Your task to perform on an android device: What is the news today? Image 0: 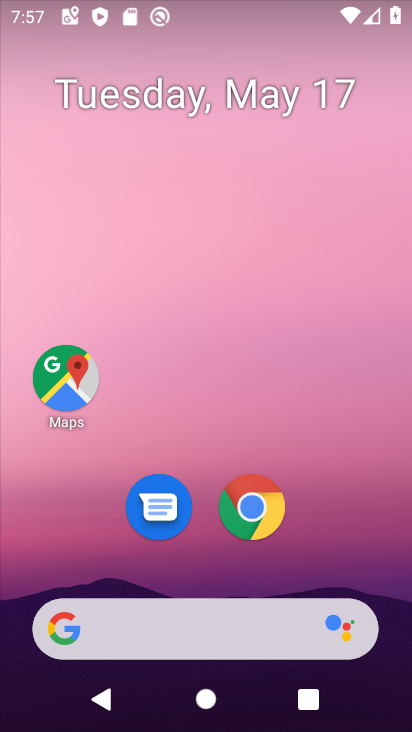
Step 0: drag from (20, 225) to (404, 302)
Your task to perform on an android device: What is the news today? Image 1: 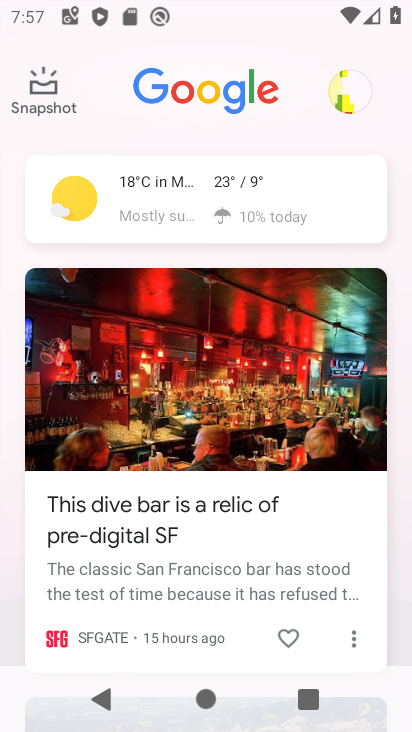
Step 1: drag from (195, 539) to (162, 243)
Your task to perform on an android device: What is the news today? Image 2: 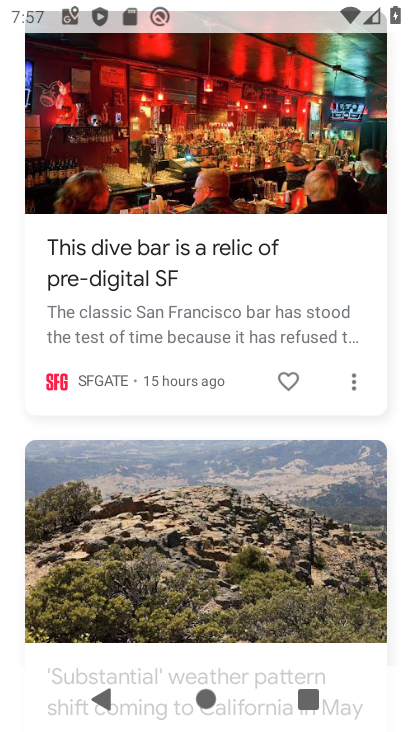
Step 2: drag from (160, 492) to (149, 311)
Your task to perform on an android device: What is the news today? Image 3: 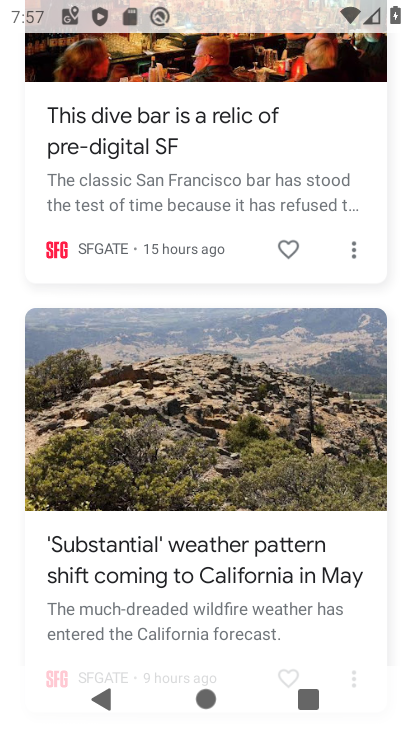
Step 3: drag from (187, 498) to (177, 306)
Your task to perform on an android device: What is the news today? Image 4: 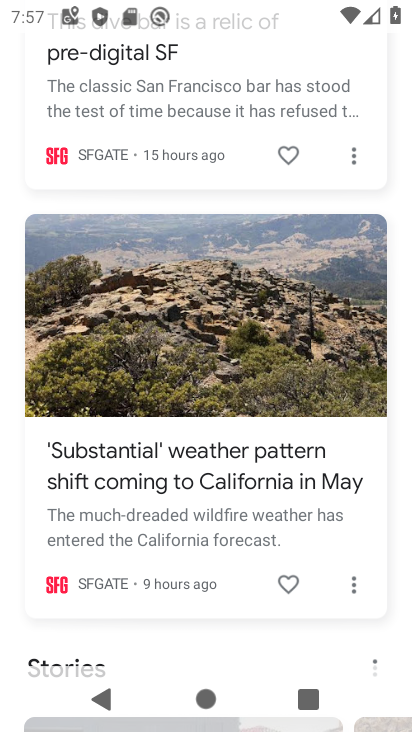
Step 4: drag from (196, 540) to (133, 100)
Your task to perform on an android device: What is the news today? Image 5: 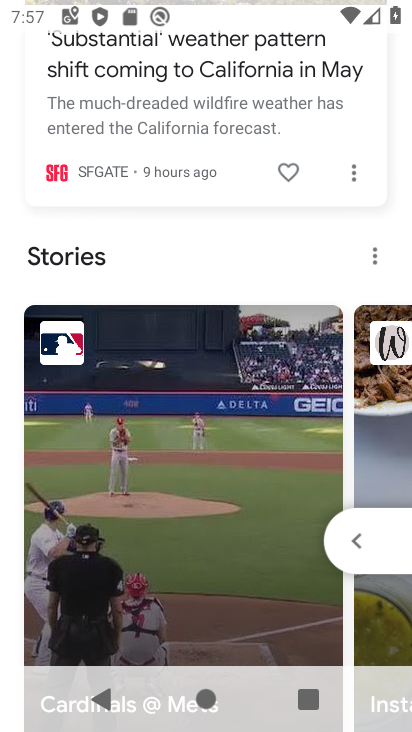
Step 5: drag from (216, 368) to (220, 208)
Your task to perform on an android device: What is the news today? Image 6: 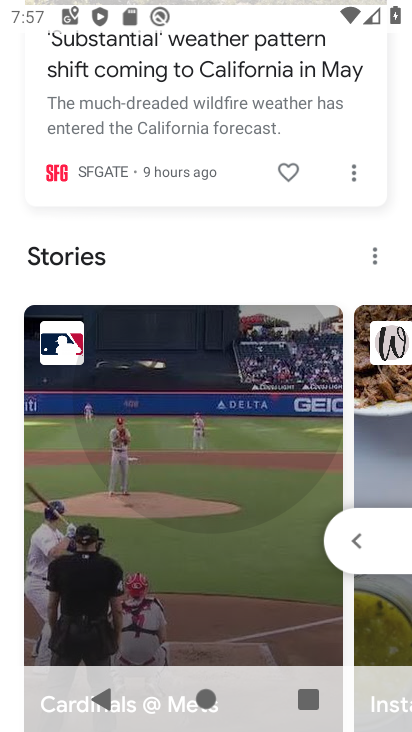
Step 6: drag from (243, 482) to (230, 107)
Your task to perform on an android device: What is the news today? Image 7: 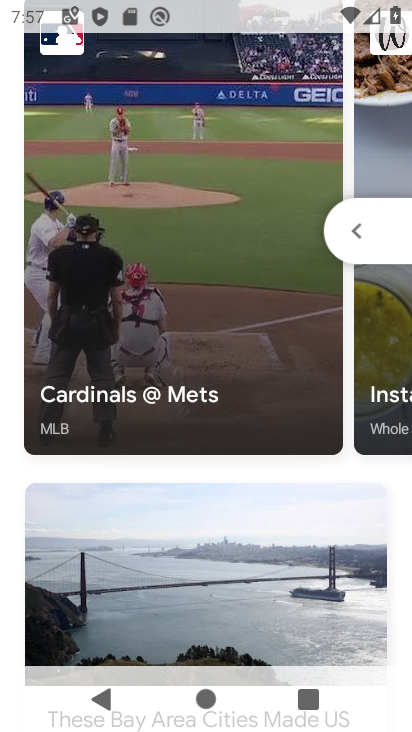
Step 7: click (223, 127)
Your task to perform on an android device: What is the news today? Image 8: 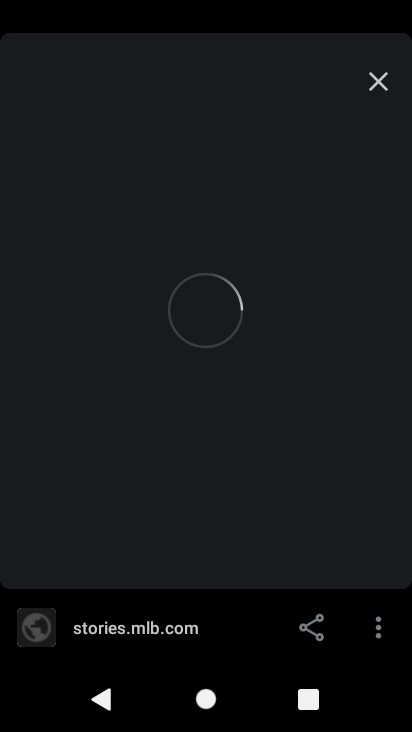
Step 8: task complete